Your task to perform on an android device: Do I have any events tomorrow? Image 0: 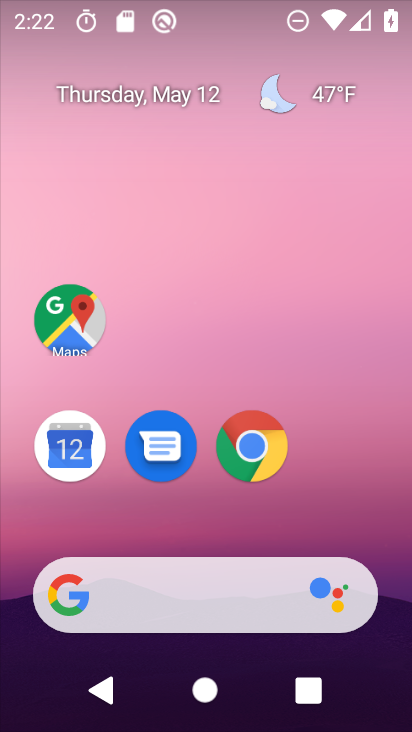
Step 0: drag from (211, 502) to (215, 255)
Your task to perform on an android device: Do I have any events tomorrow? Image 1: 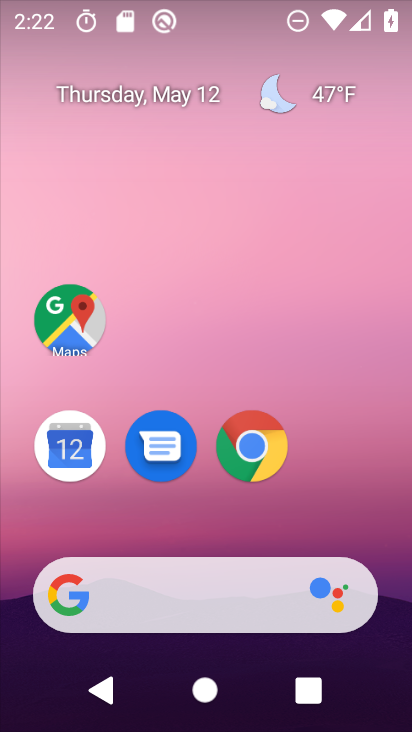
Step 1: drag from (209, 537) to (232, 140)
Your task to perform on an android device: Do I have any events tomorrow? Image 2: 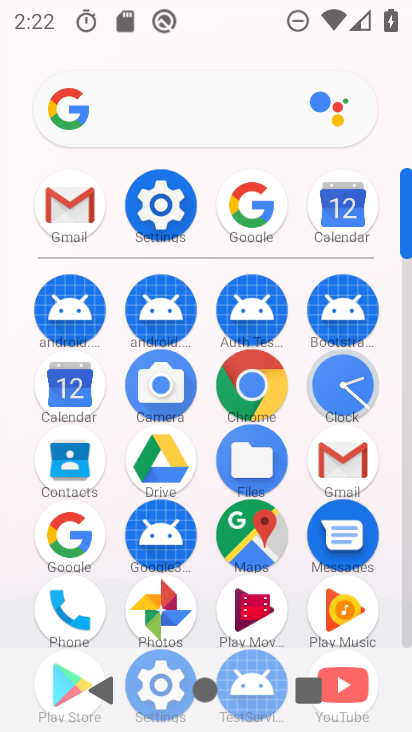
Step 2: click (74, 392)
Your task to perform on an android device: Do I have any events tomorrow? Image 3: 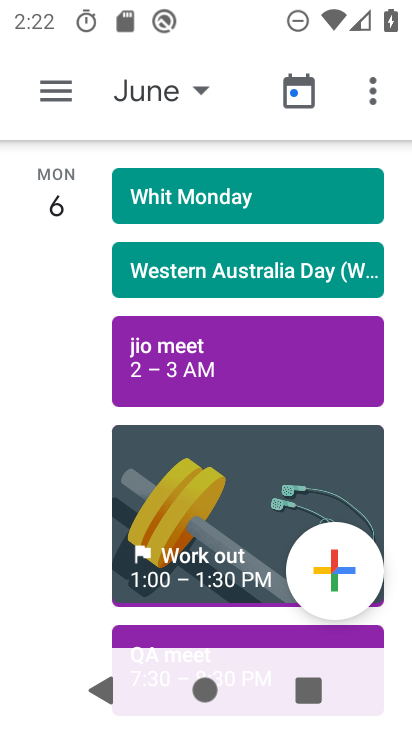
Step 3: click (186, 105)
Your task to perform on an android device: Do I have any events tomorrow? Image 4: 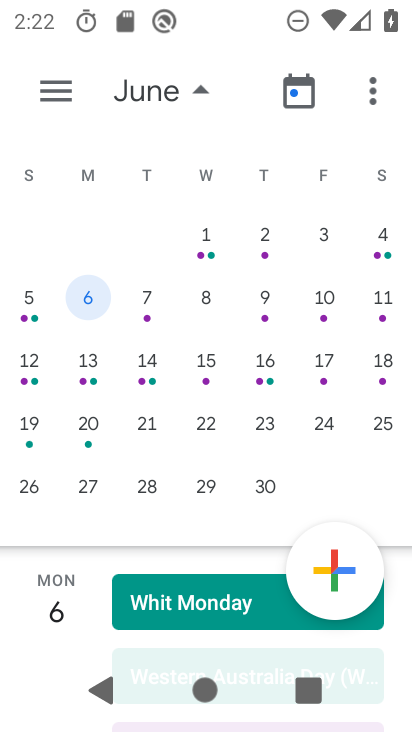
Step 4: click (152, 308)
Your task to perform on an android device: Do I have any events tomorrow? Image 5: 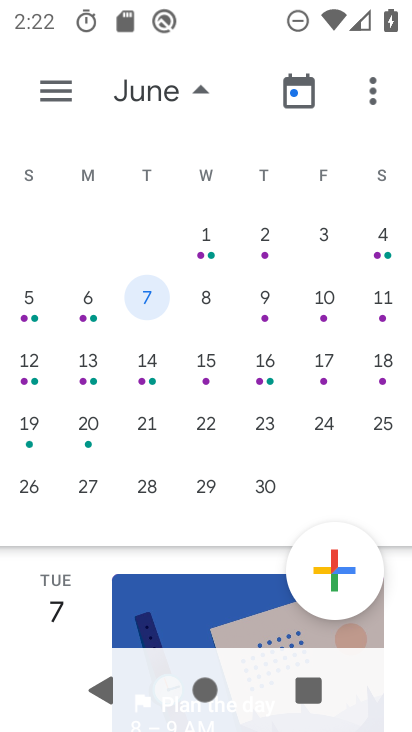
Step 5: click (201, 302)
Your task to perform on an android device: Do I have any events tomorrow? Image 6: 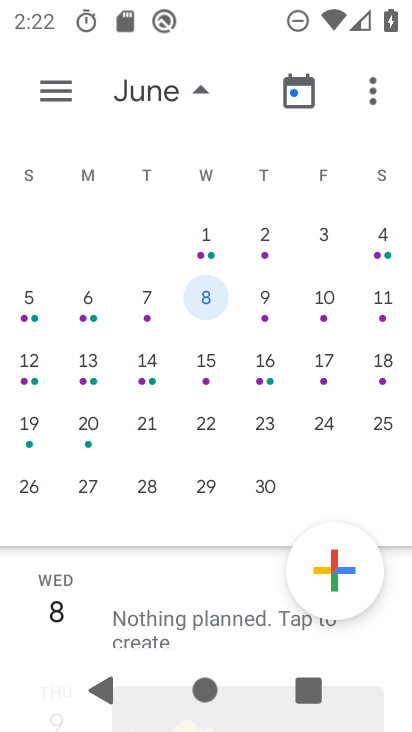
Step 6: drag from (77, 310) to (353, 323)
Your task to perform on an android device: Do I have any events tomorrow? Image 7: 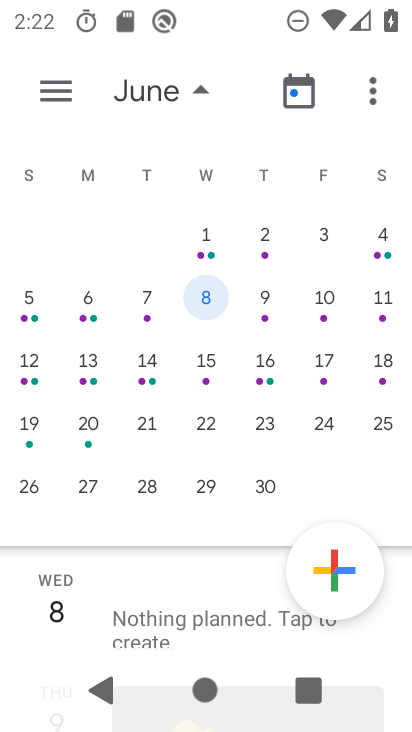
Step 7: click (270, 299)
Your task to perform on an android device: Do I have any events tomorrow? Image 8: 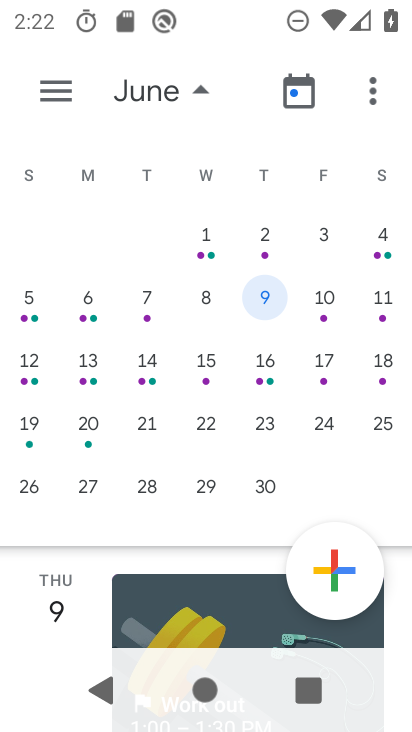
Step 8: drag from (57, 344) to (385, 345)
Your task to perform on an android device: Do I have any events tomorrow? Image 9: 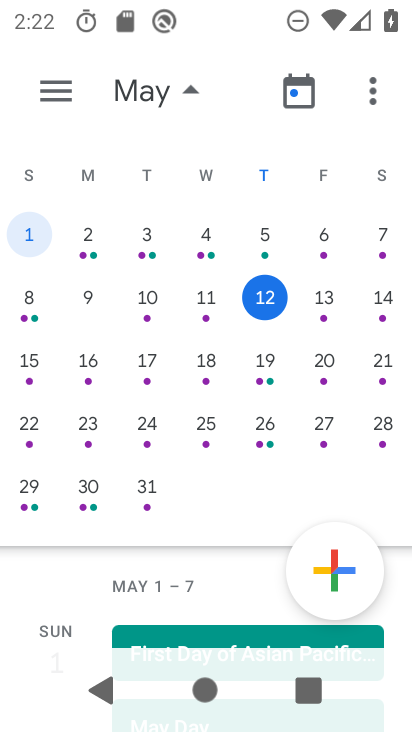
Step 9: click (317, 295)
Your task to perform on an android device: Do I have any events tomorrow? Image 10: 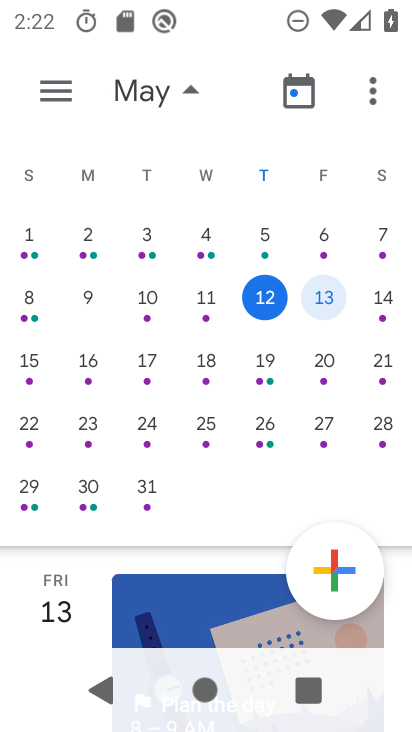
Step 10: task complete